Your task to perform on an android device: make emails show in primary in the gmail app Image 0: 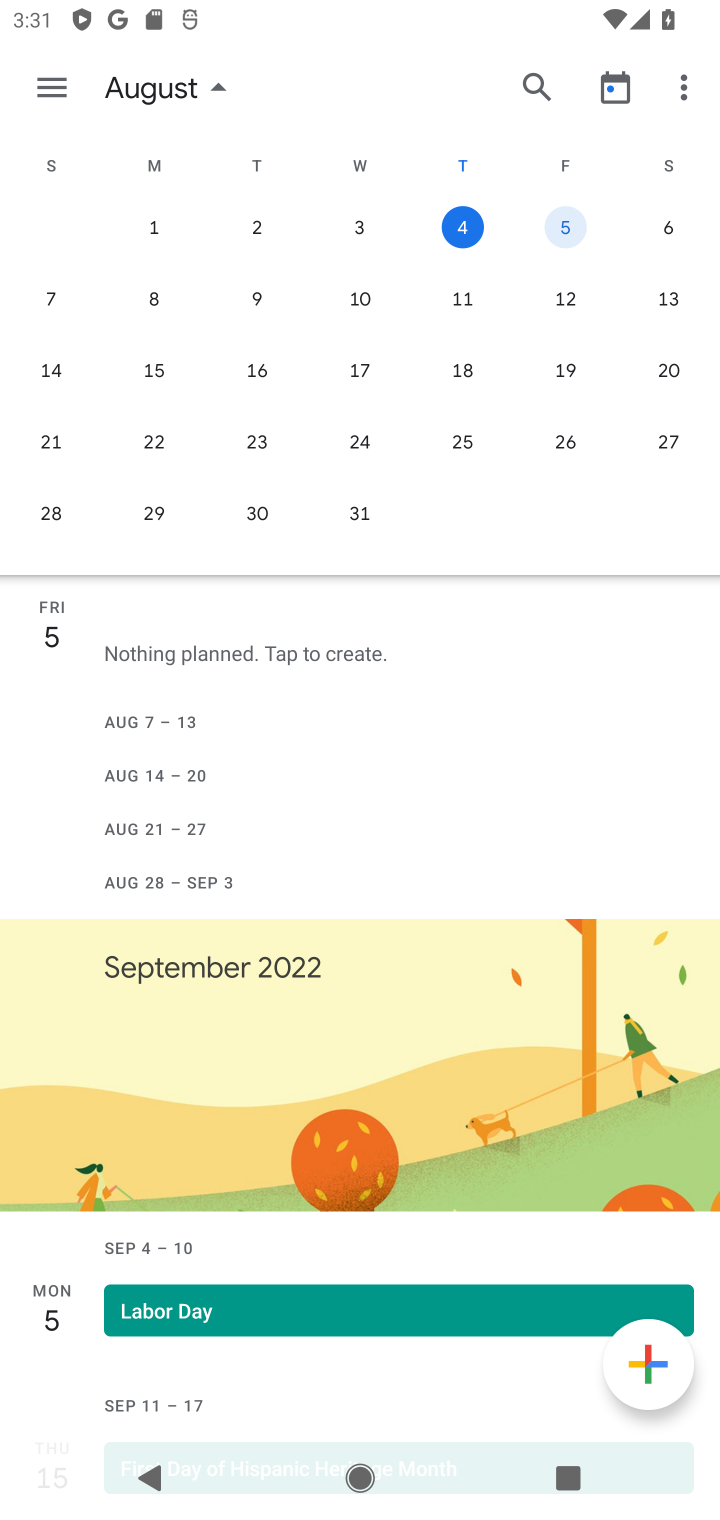
Step 0: press back button
Your task to perform on an android device: make emails show in primary in the gmail app Image 1: 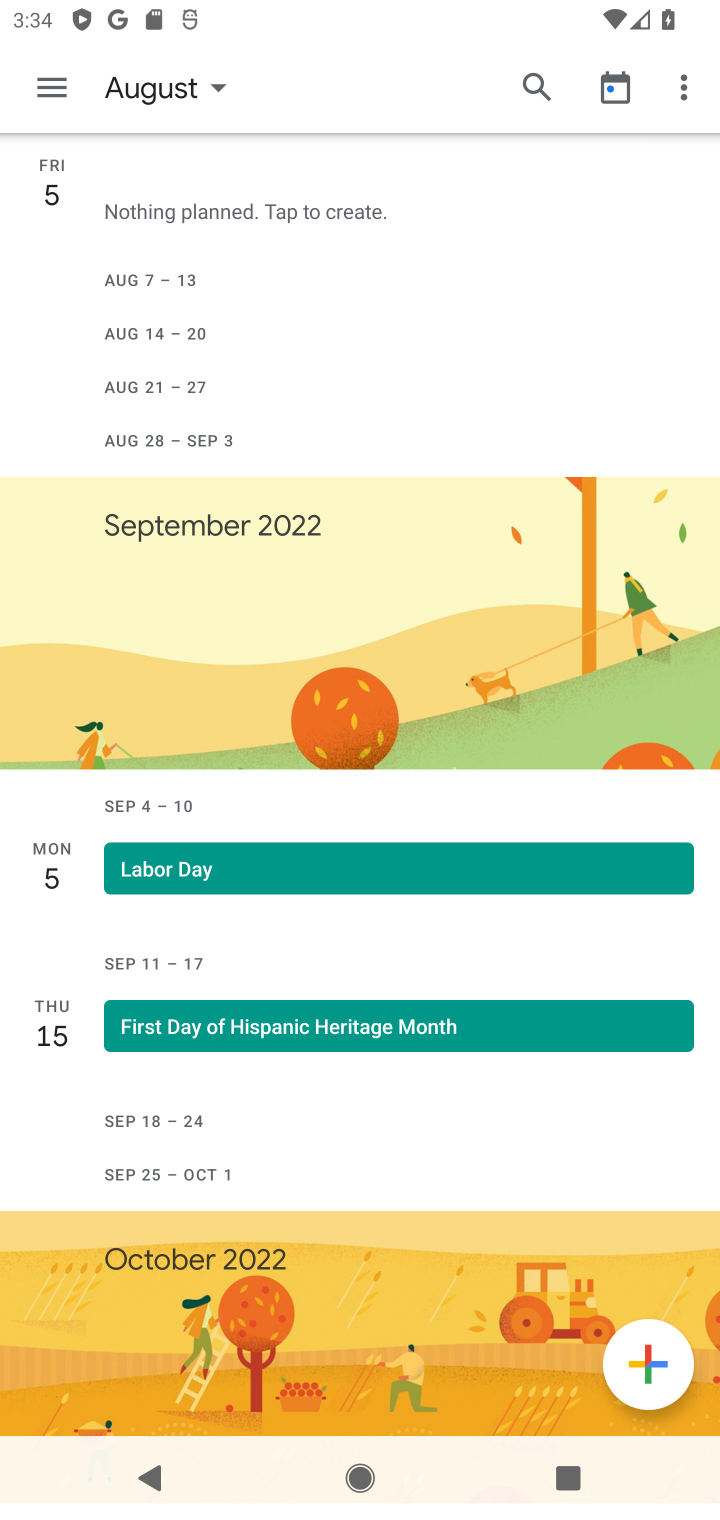
Step 1: press back button
Your task to perform on an android device: make emails show in primary in the gmail app Image 2: 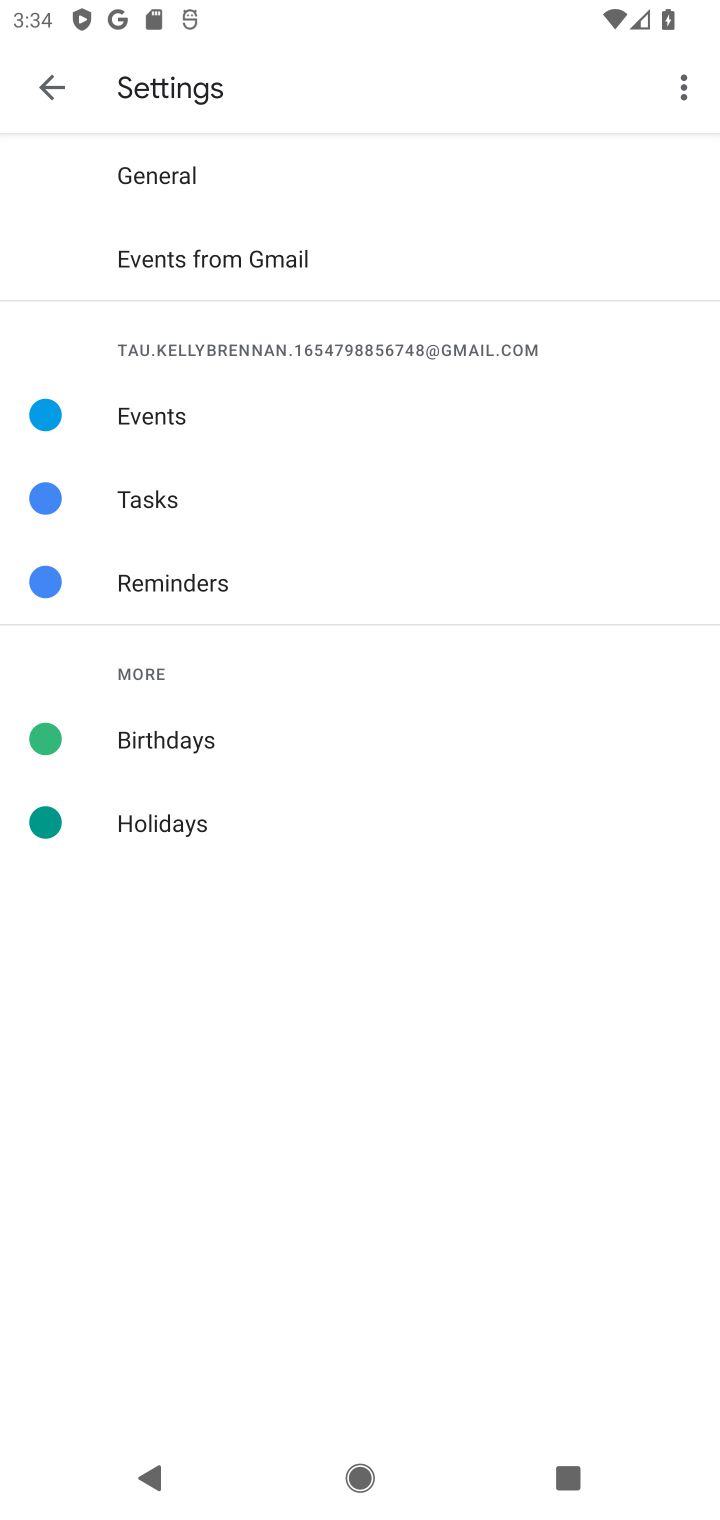
Step 2: press back button
Your task to perform on an android device: make emails show in primary in the gmail app Image 3: 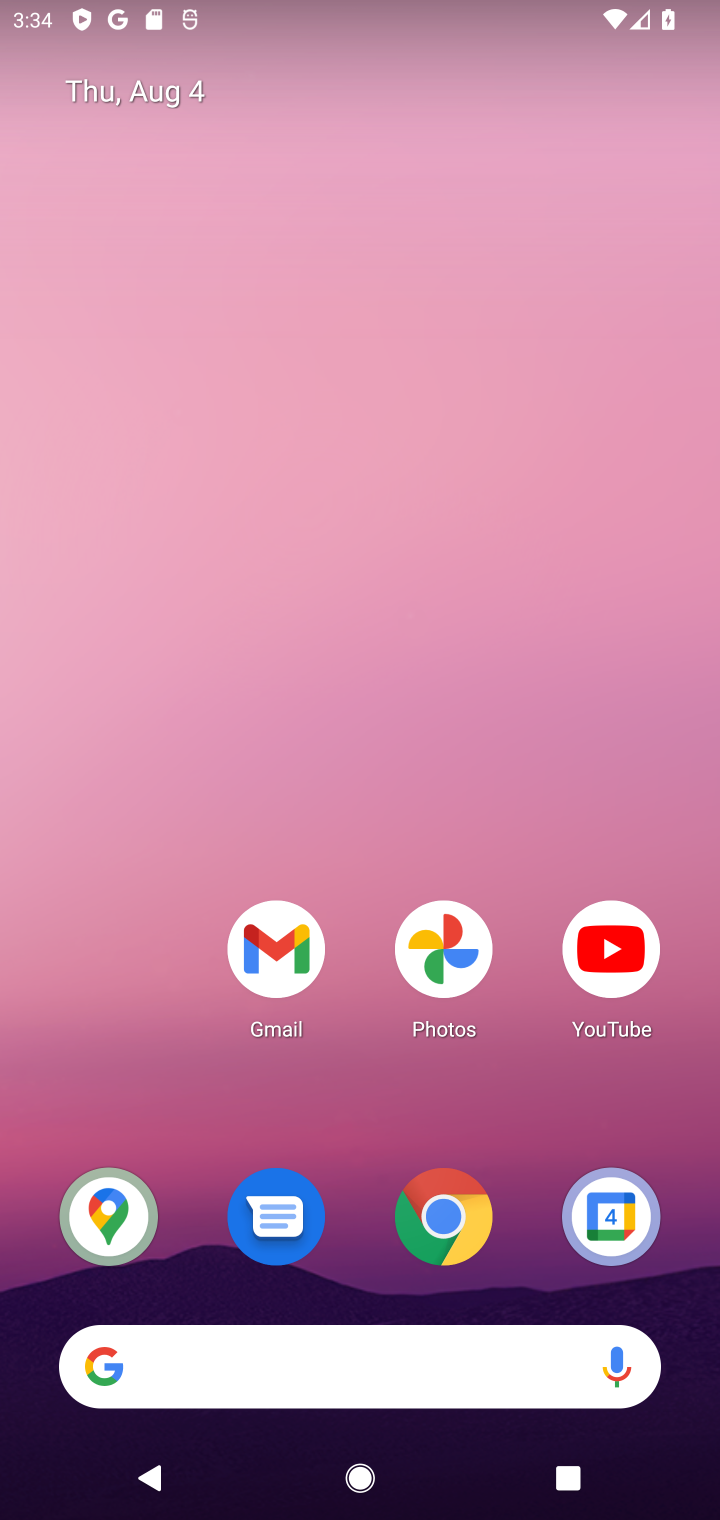
Step 3: click (256, 953)
Your task to perform on an android device: make emails show in primary in the gmail app Image 4: 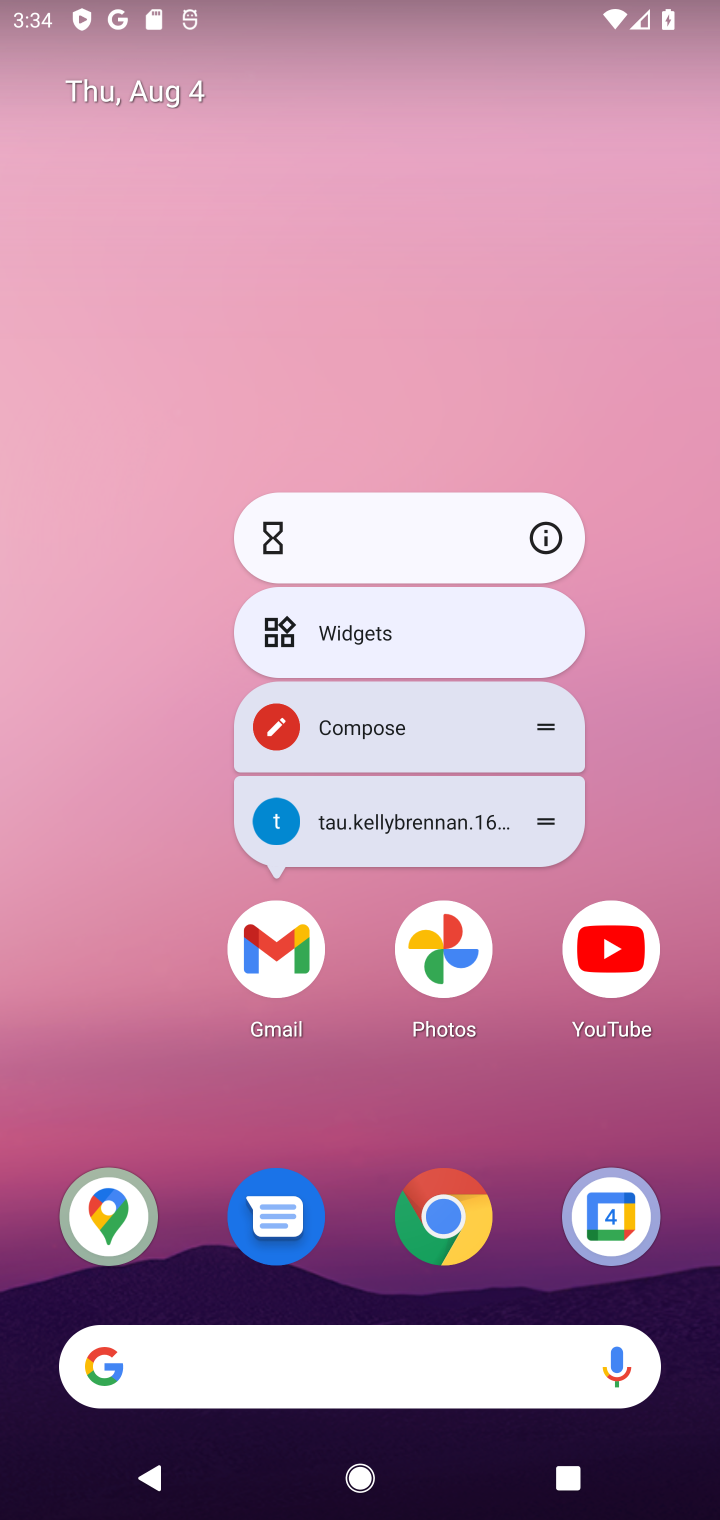
Step 4: click (271, 948)
Your task to perform on an android device: make emails show in primary in the gmail app Image 5: 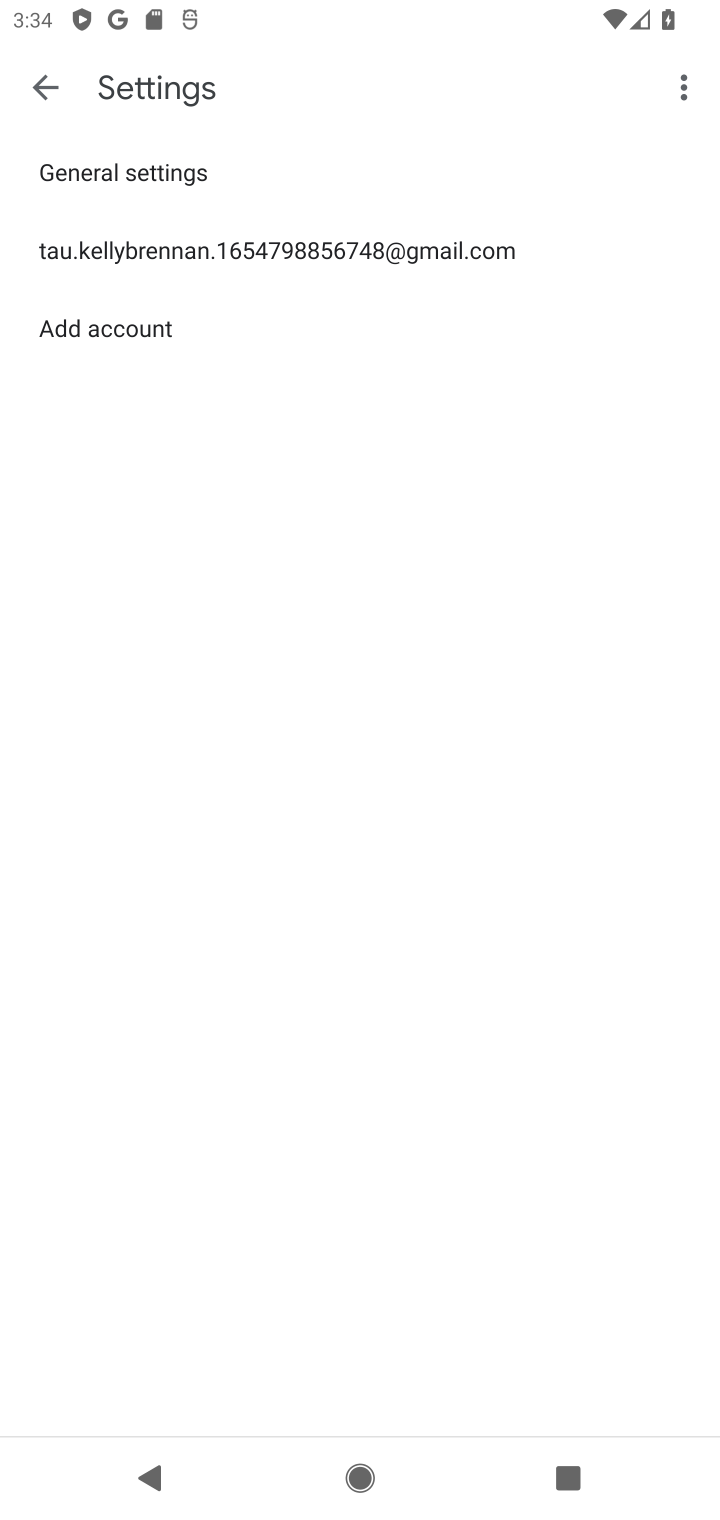
Step 5: click (171, 265)
Your task to perform on an android device: make emails show in primary in the gmail app Image 6: 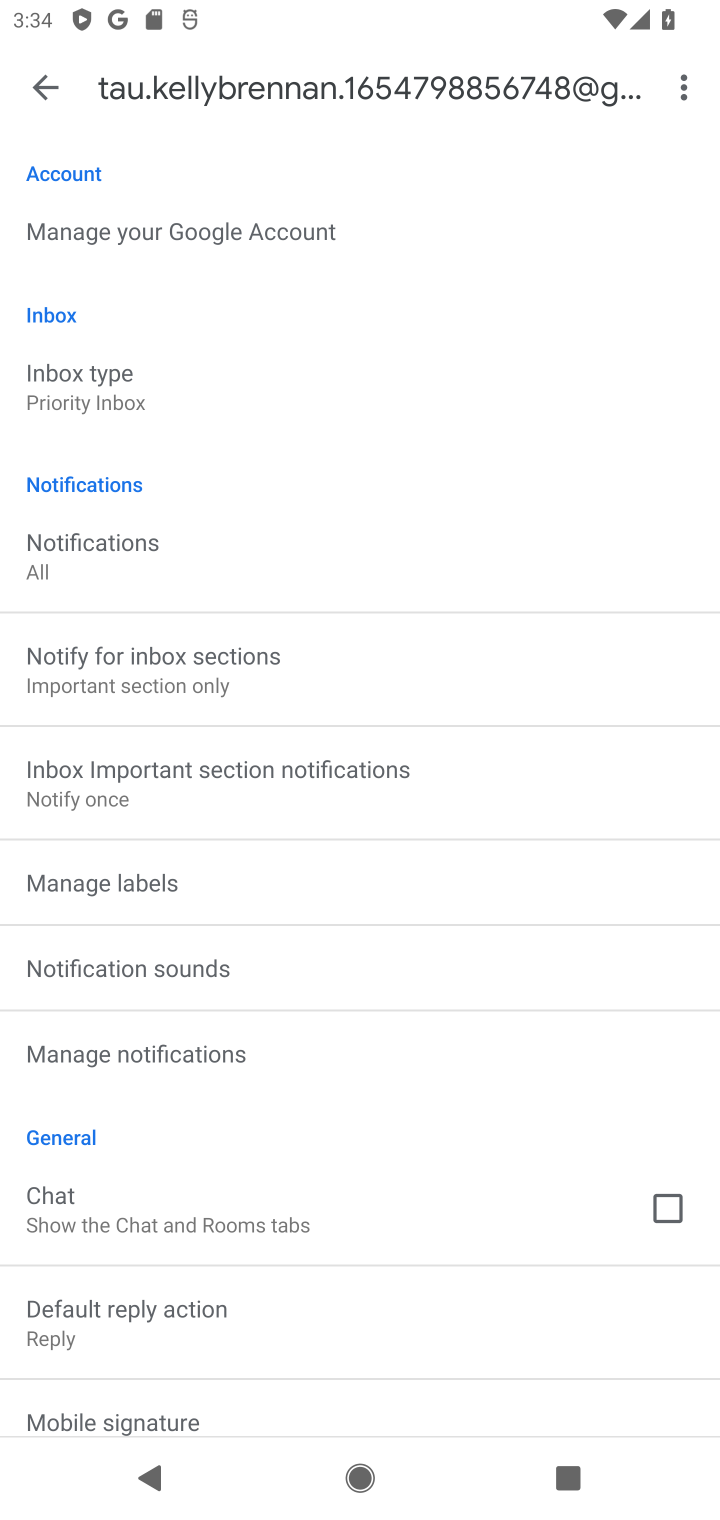
Step 6: task complete